Your task to perform on an android device: Open Google Image 0: 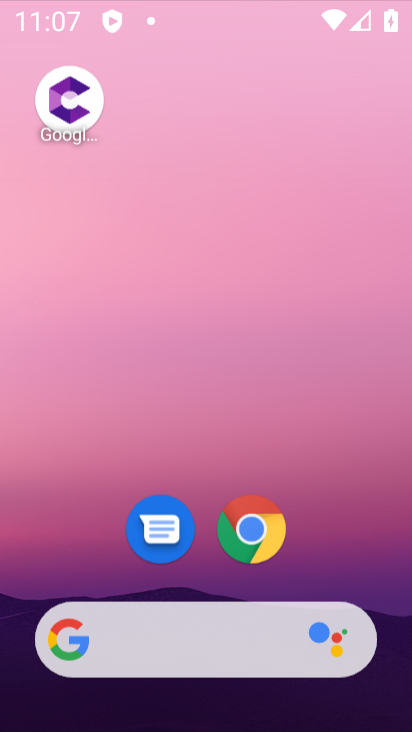
Step 0: press home button
Your task to perform on an android device: Open Google Image 1: 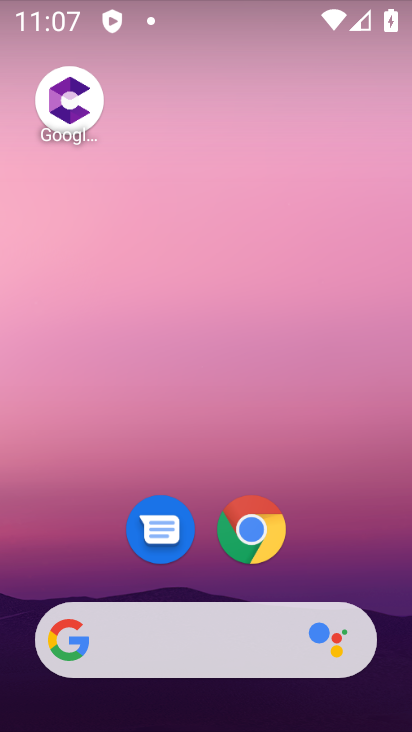
Step 1: drag from (239, 678) to (315, 272)
Your task to perform on an android device: Open Google Image 2: 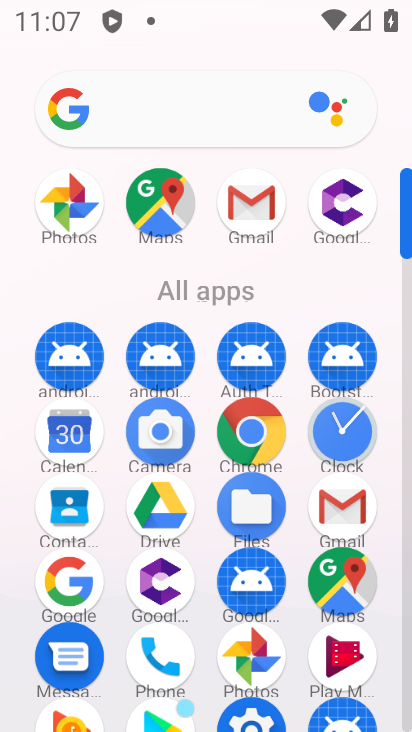
Step 2: click (165, 203)
Your task to perform on an android device: Open Google Image 3: 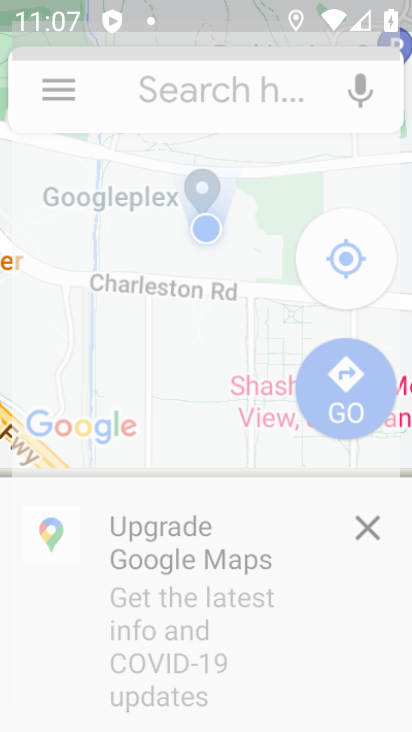
Step 3: click (356, 515)
Your task to perform on an android device: Open Google Image 4: 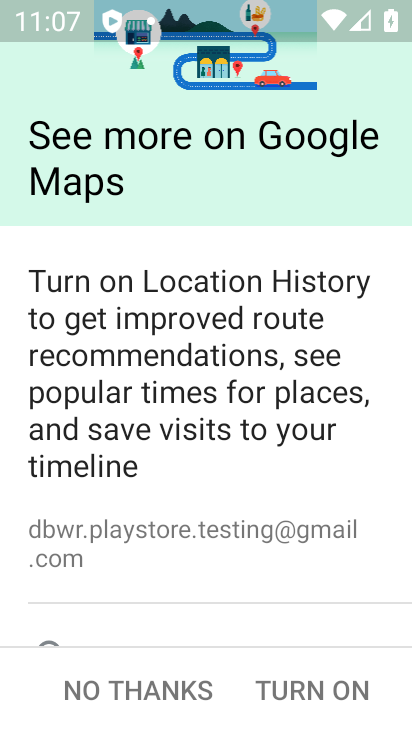
Step 4: click (139, 698)
Your task to perform on an android device: Open Google Image 5: 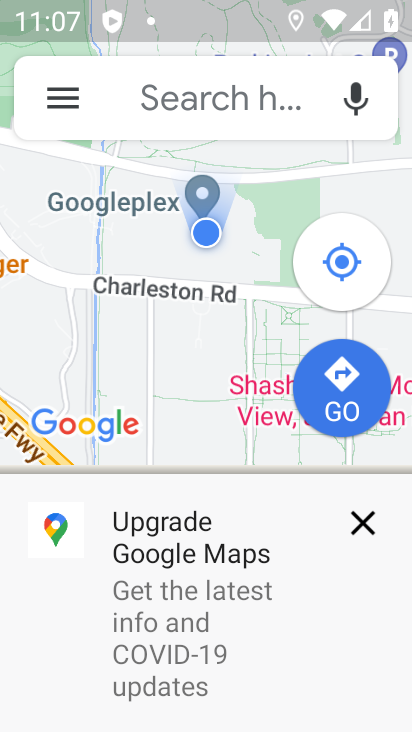
Step 5: click (372, 516)
Your task to perform on an android device: Open Google Image 6: 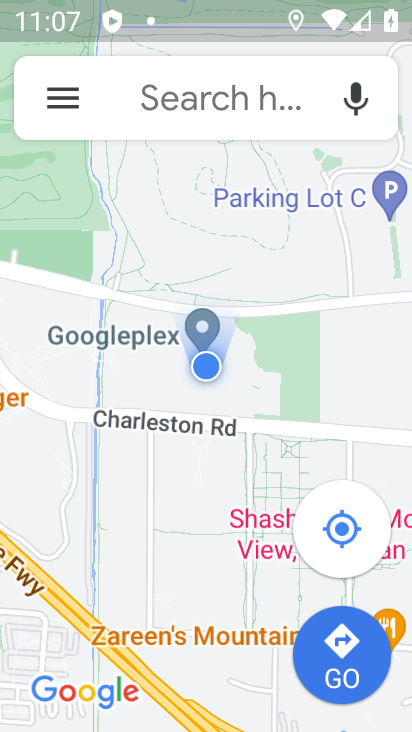
Step 6: click (68, 90)
Your task to perform on an android device: Open Google Image 7: 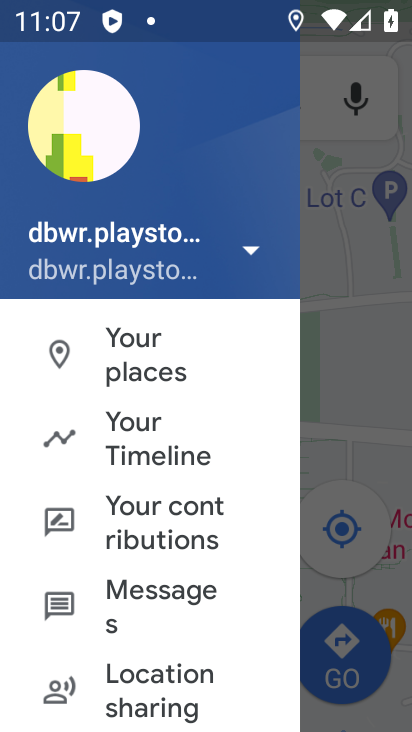
Step 7: press home button
Your task to perform on an android device: Open Google Image 8: 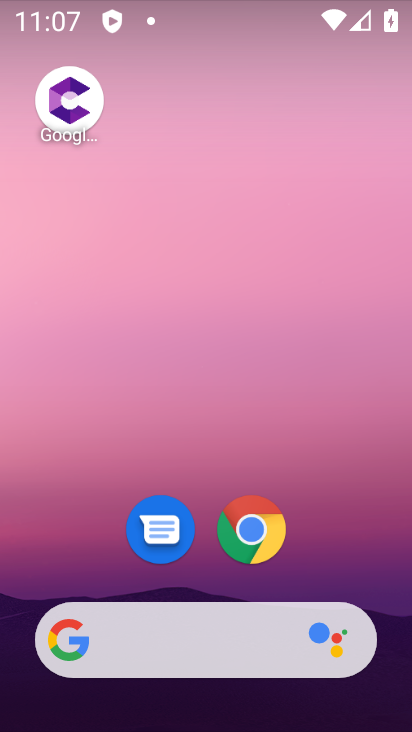
Step 8: click (62, 627)
Your task to perform on an android device: Open Google Image 9: 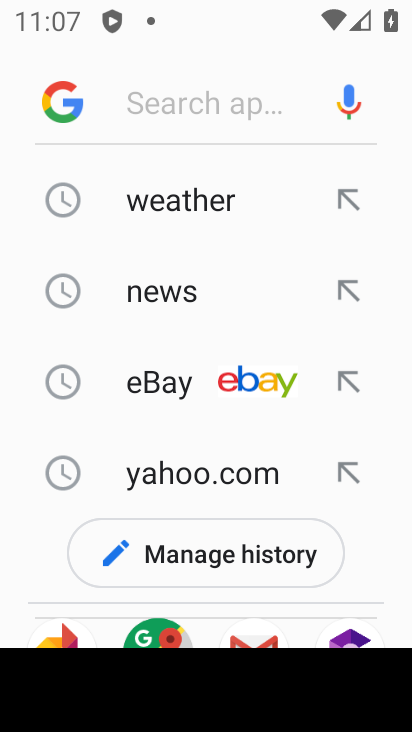
Step 9: click (60, 110)
Your task to perform on an android device: Open Google Image 10: 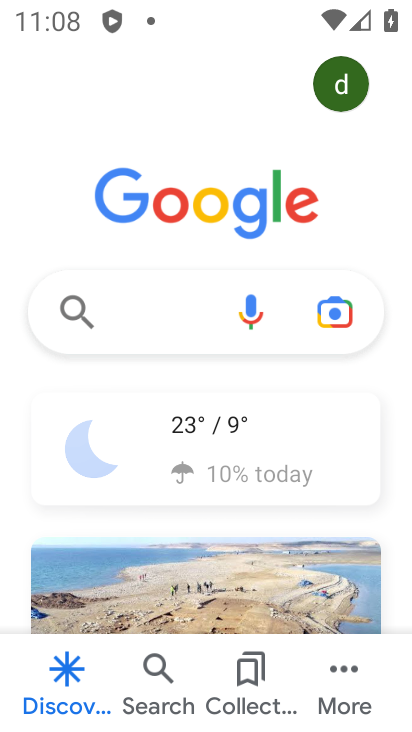
Step 10: task complete